Your task to perform on an android device: uninstall "Pinterest" Image 0: 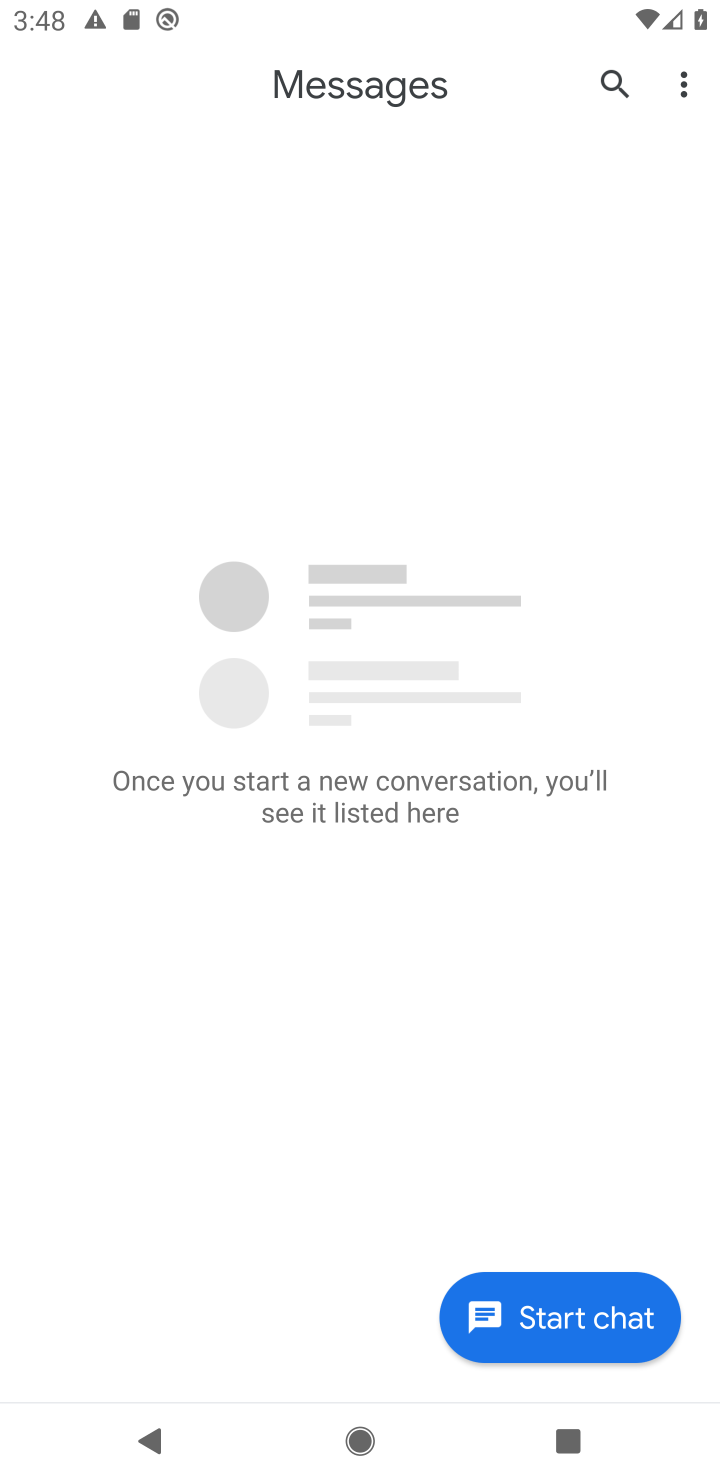
Step 0: press back button
Your task to perform on an android device: uninstall "Pinterest" Image 1: 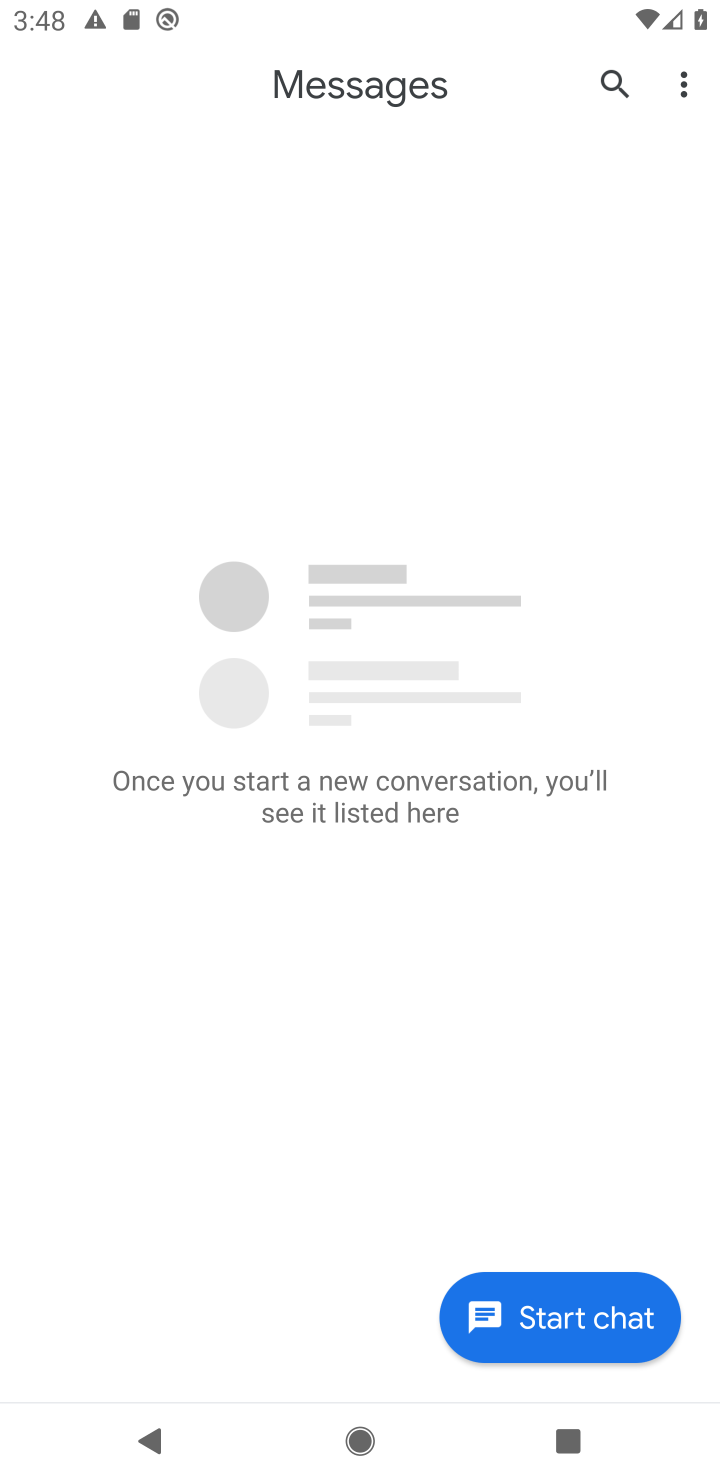
Step 1: press home button
Your task to perform on an android device: uninstall "Pinterest" Image 2: 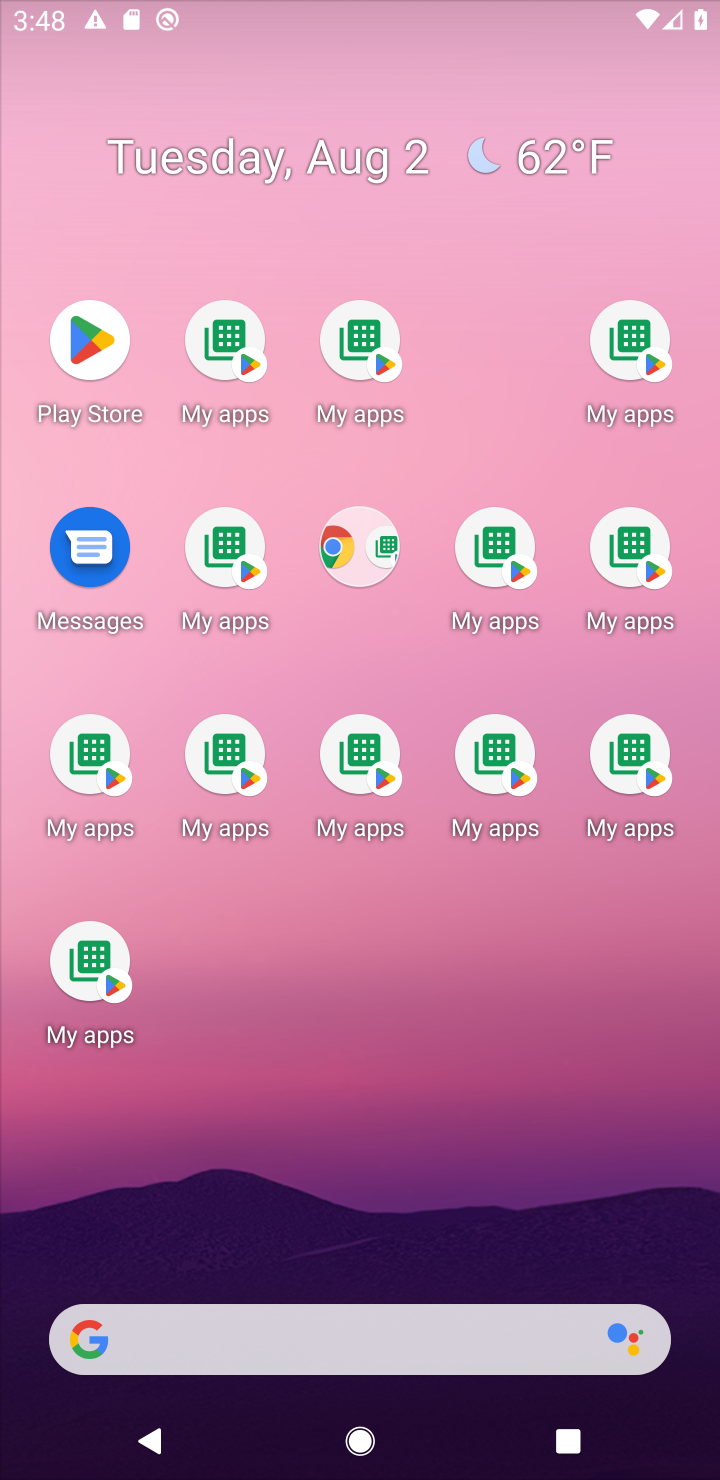
Step 2: press home button
Your task to perform on an android device: uninstall "Pinterest" Image 3: 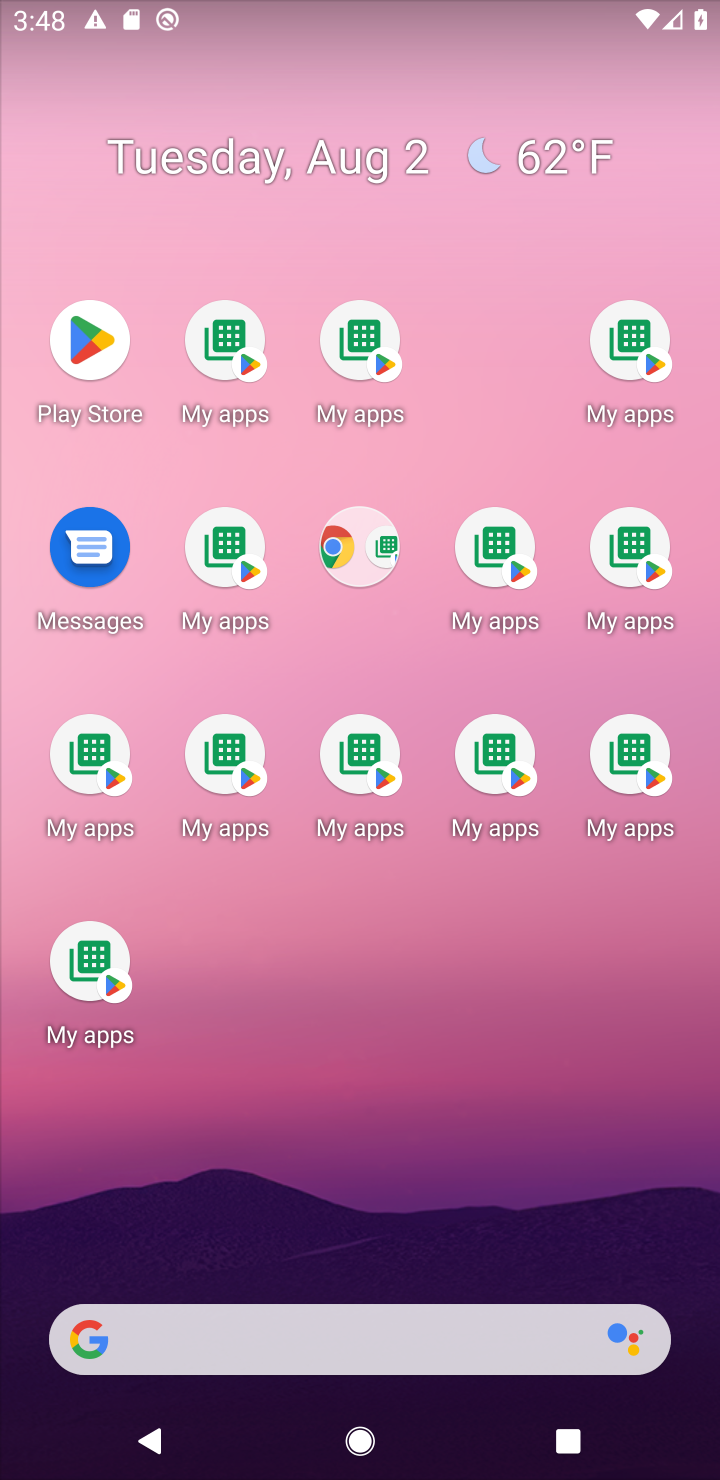
Step 3: click (77, 337)
Your task to perform on an android device: uninstall "Pinterest" Image 4: 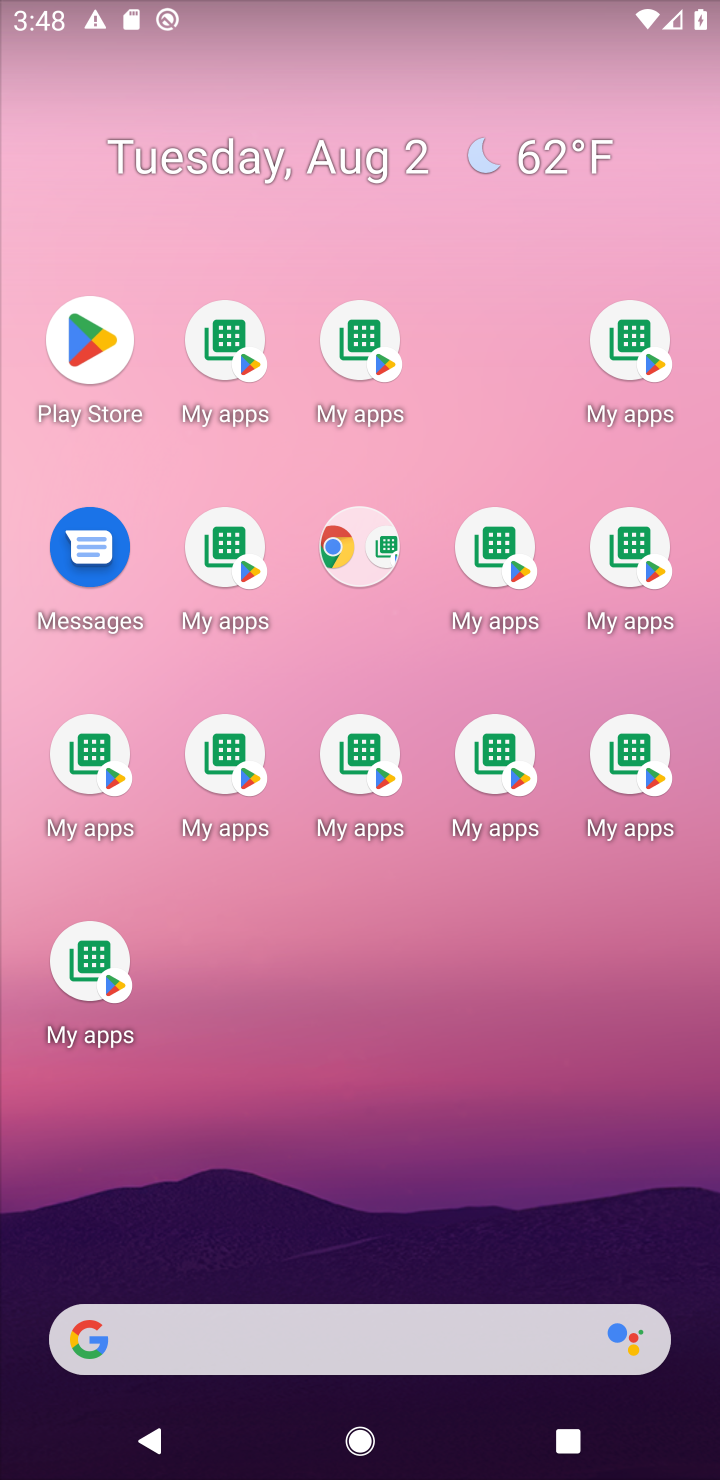
Step 4: click (80, 335)
Your task to perform on an android device: uninstall "Pinterest" Image 5: 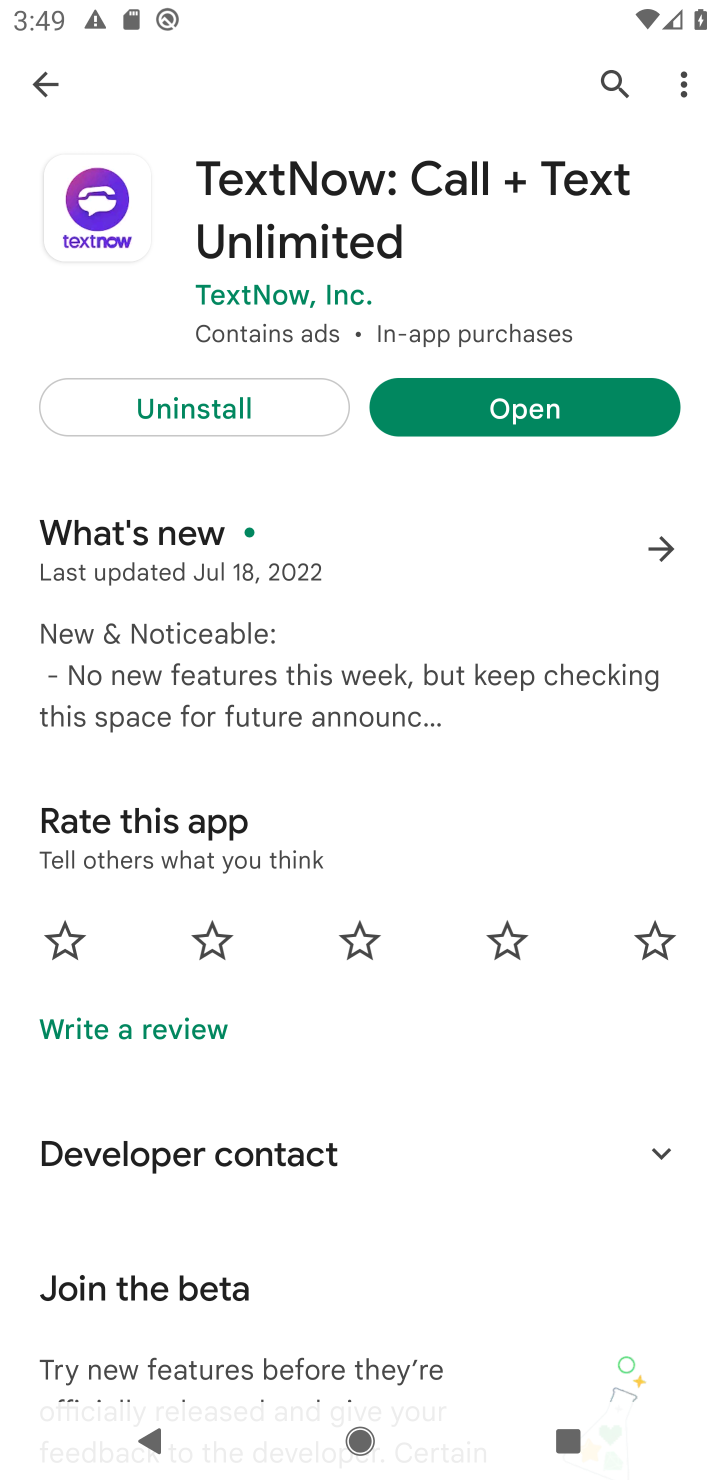
Step 5: click (17, 87)
Your task to perform on an android device: uninstall "Pinterest" Image 6: 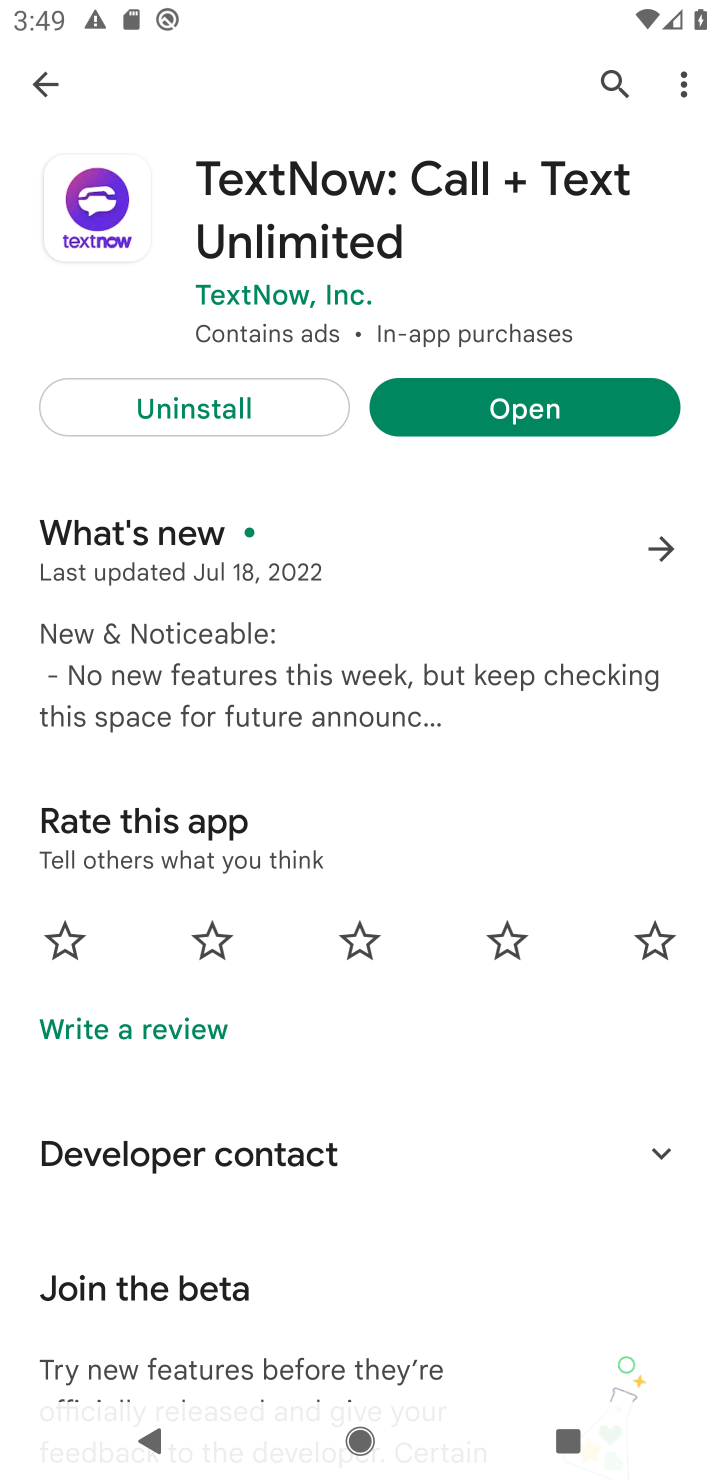
Step 6: click (17, 87)
Your task to perform on an android device: uninstall "Pinterest" Image 7: 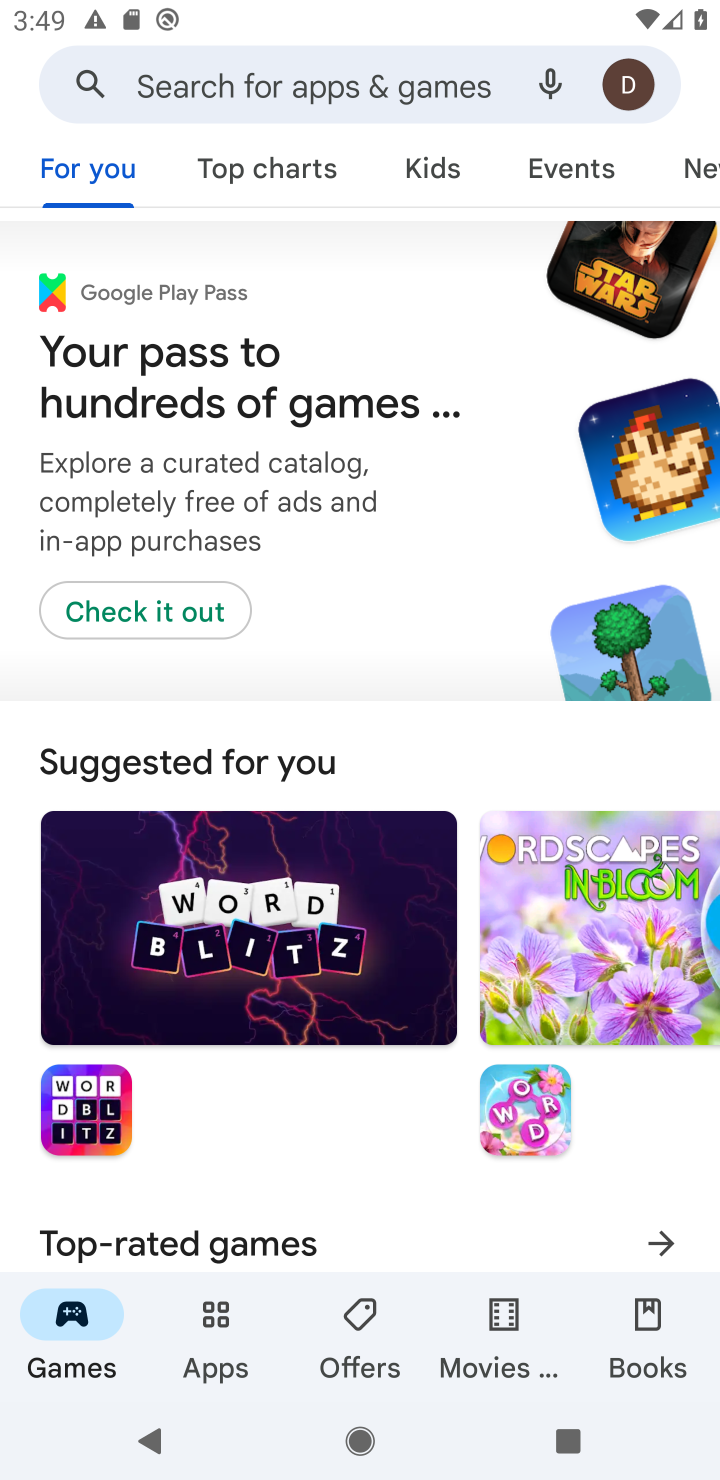
Step 7: click (189, 90)
Your task to perform on an android device: uninstall "Pinterest" Image 8: 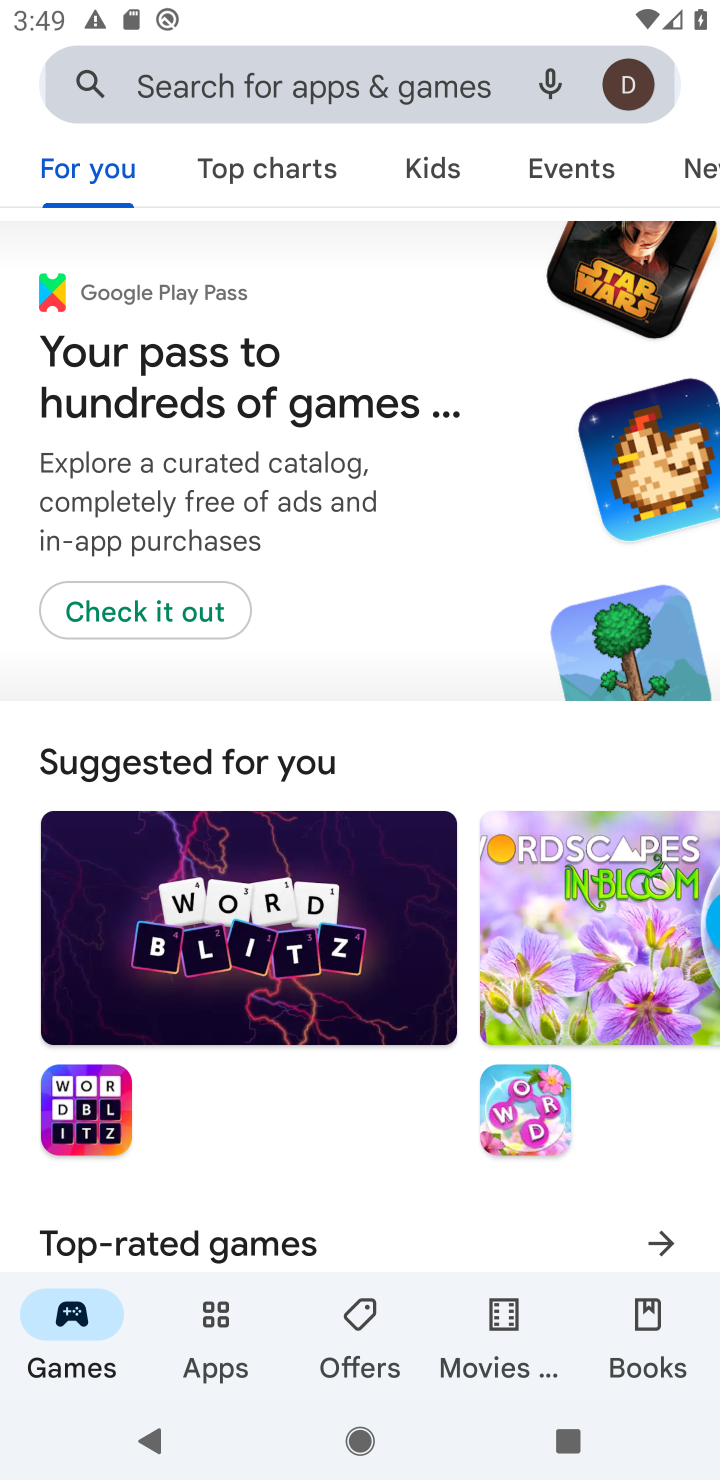
Step 8: click (179, 75)
Your task to perform on an android device: uninstall "Pinterest" Image 9: 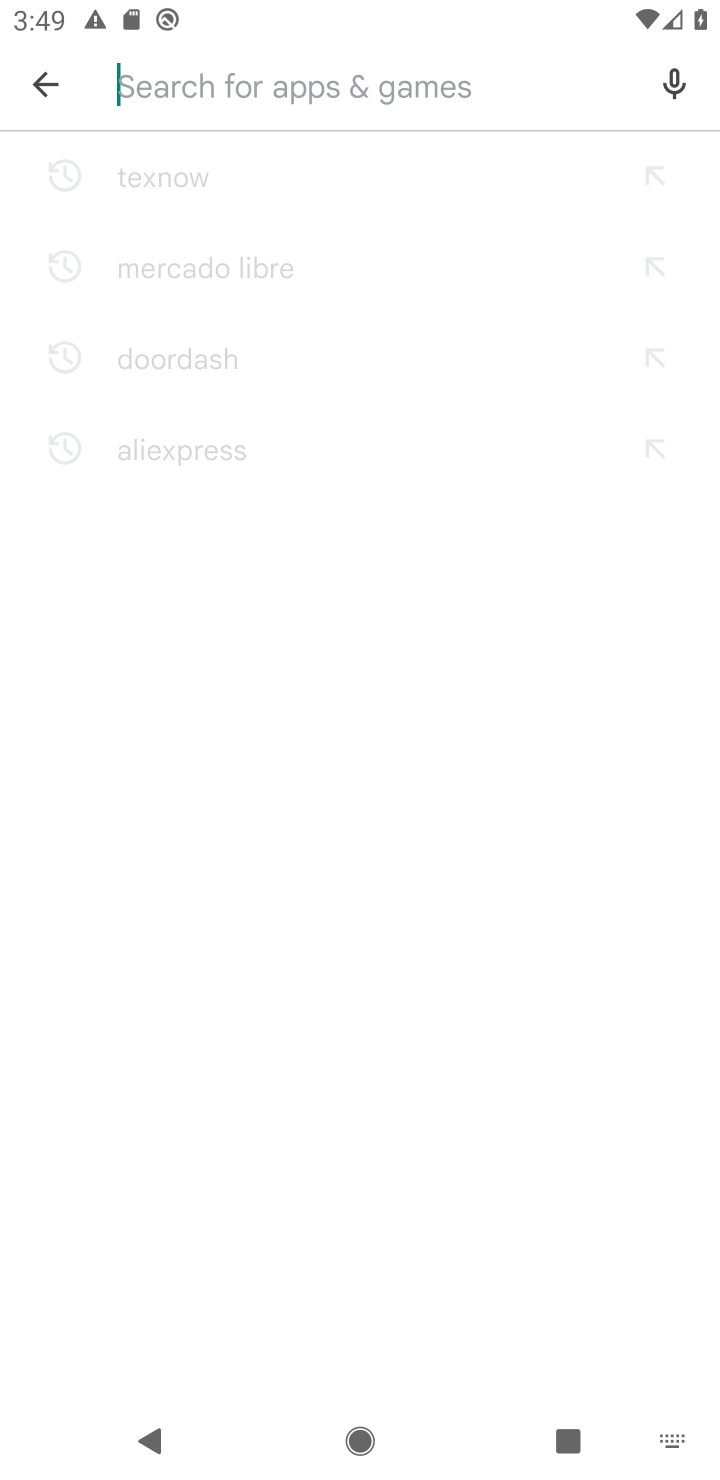
Step 9: click (180, 77)
Your task to perform on an android device: uninstall "Pinterest" Image 10: 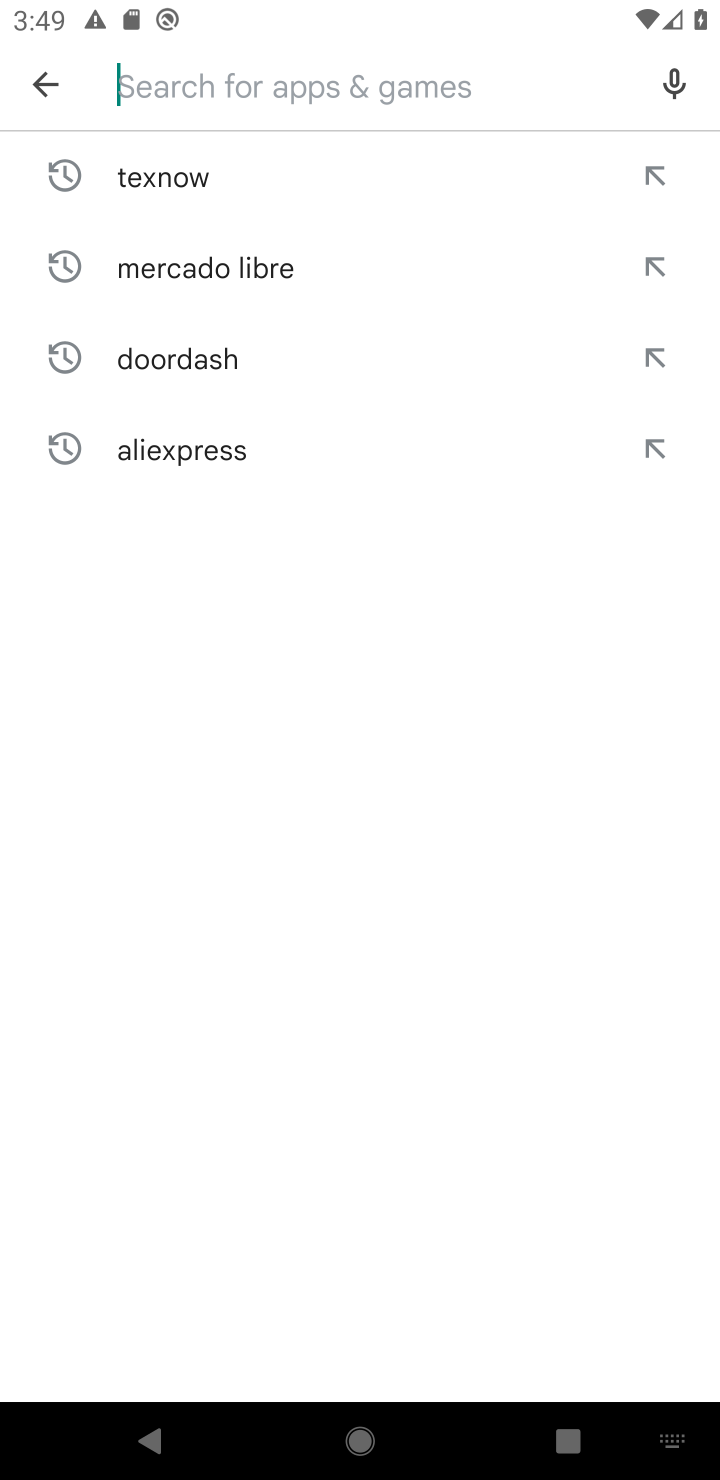
Step 10: type "pinterest"
Your task to perform on an android device: uninstall "Pinterest" Image 11: 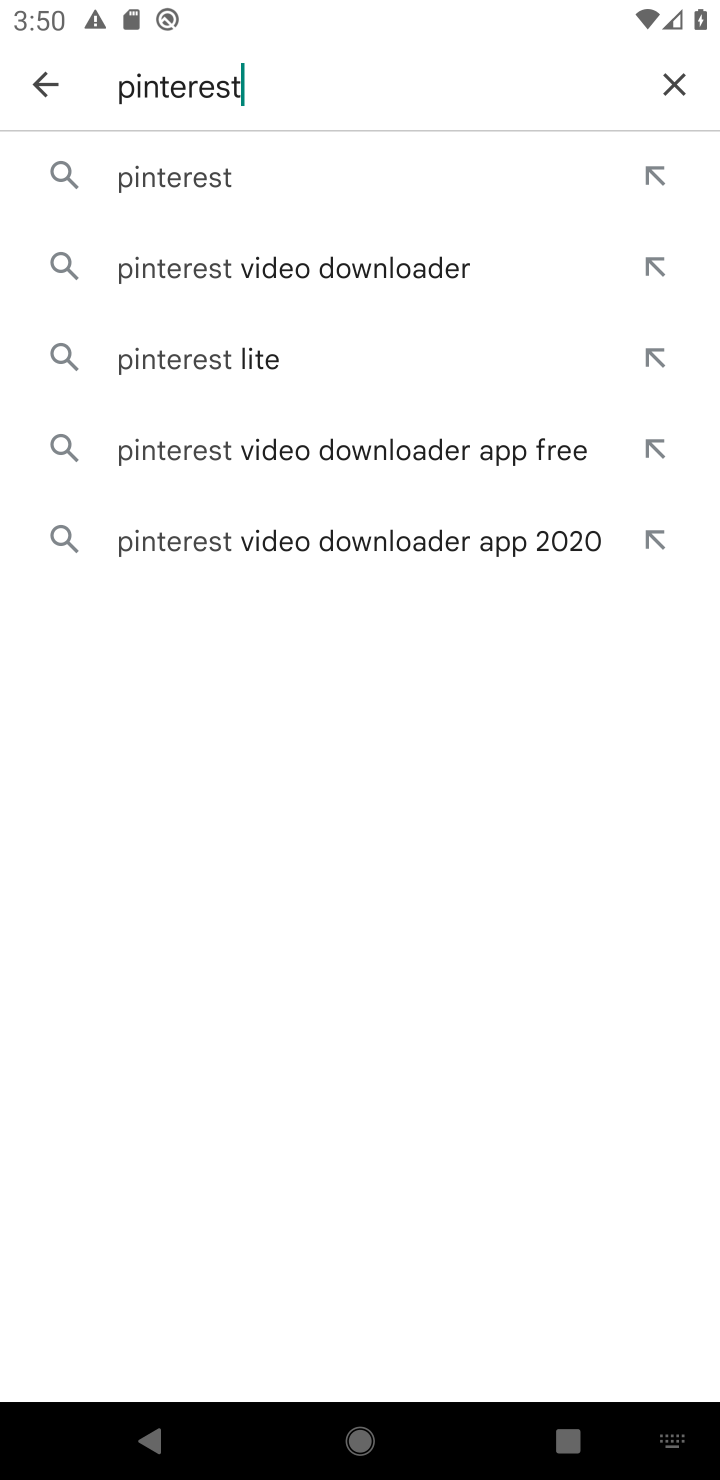
Step 11: click (99, 155)
Your task to perform on an android device: uninstall "Pinterest" Image 12: 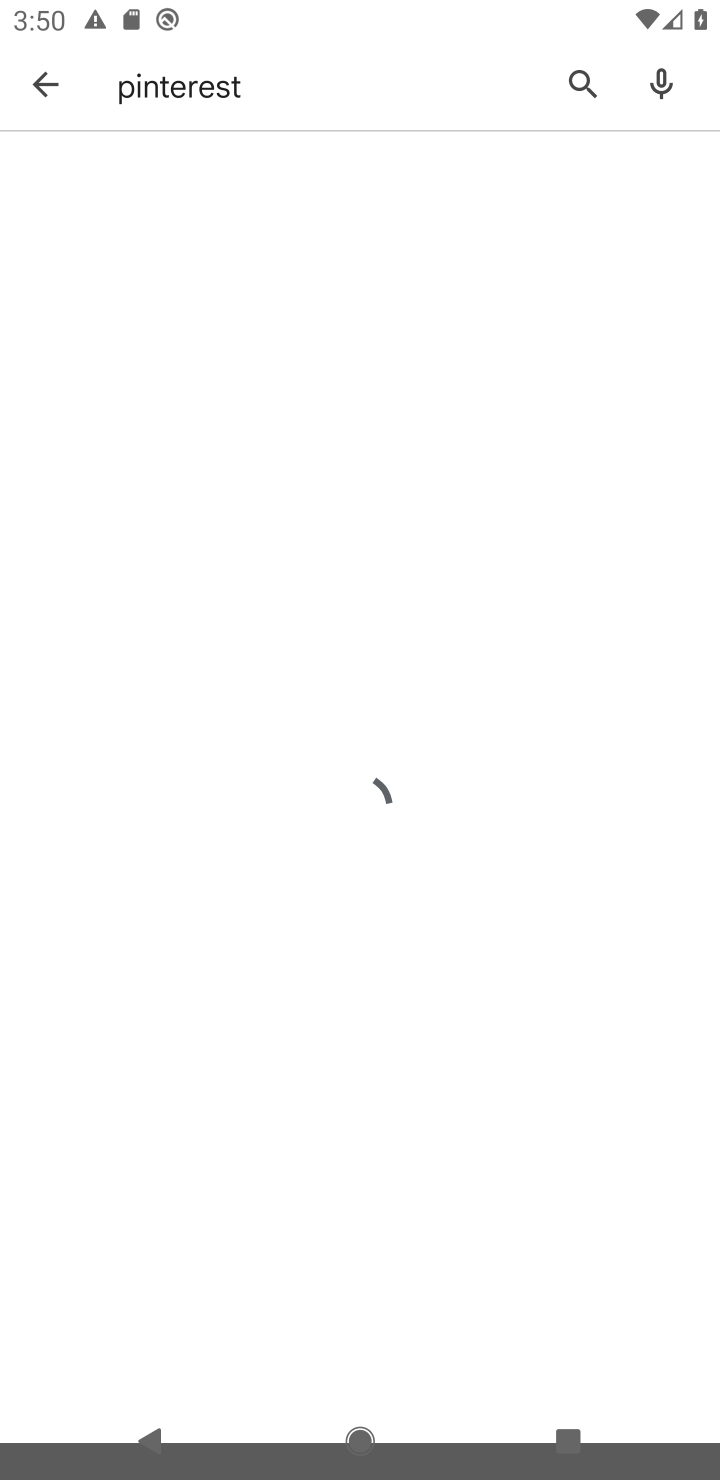
Step 12: click (111, 160)
Your task to perform on an android device: uninstall "Pinterest" Image 13: 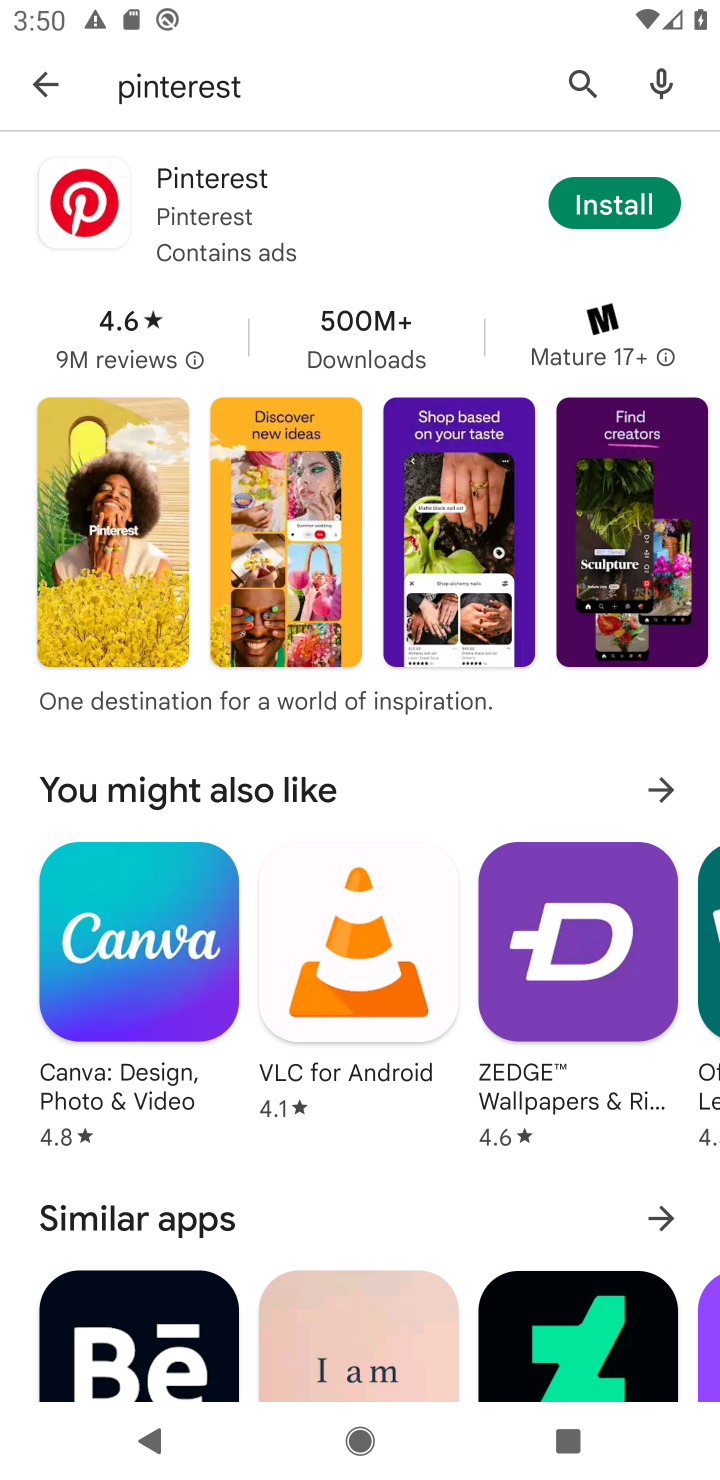
Step 13: task complete